Your task to perform on an android device: Go to Wikipedia Image 0: 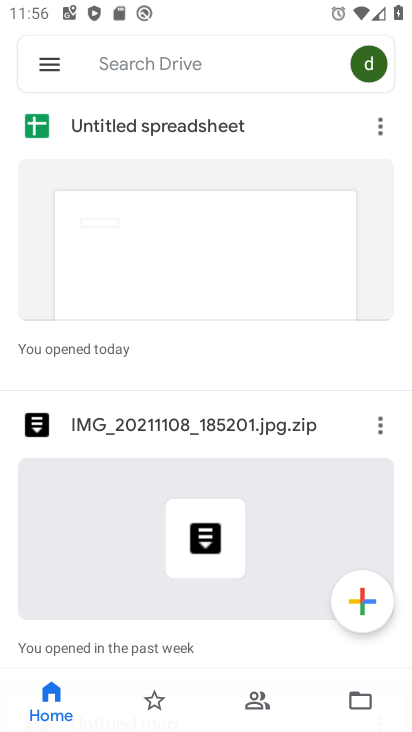
Step 0: press home button
Your task to perform on an android device: Go to Wikipedia Image 1: 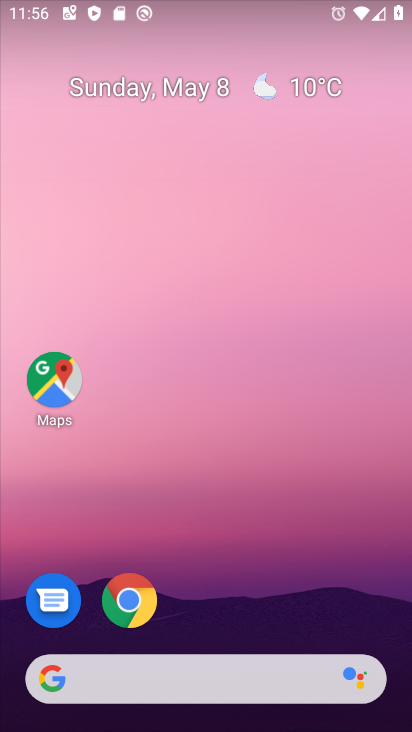
Step 1: click (127, 594)
Your task to perform on an android device: Go to Wikipedia Image 2: 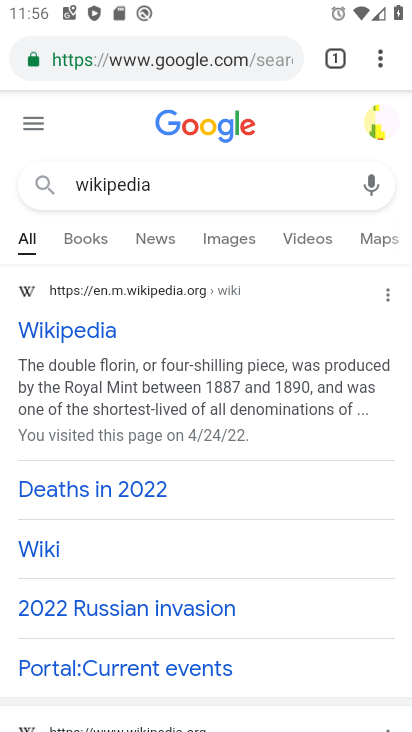
Step 2: click (36, 327)
Your task to perform on an android device: Go to Wikipedia Image 3: 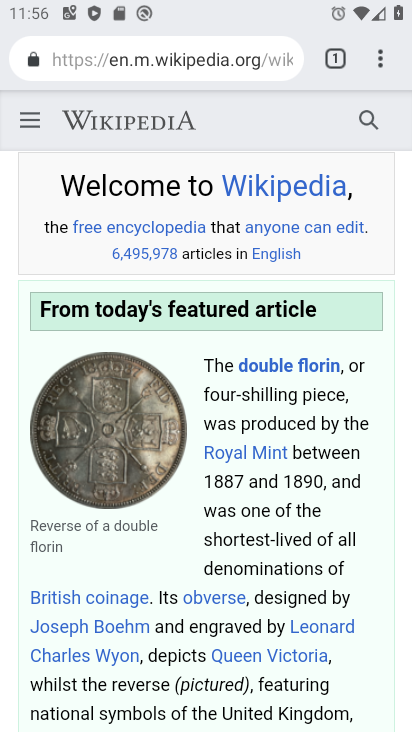
Step 3: task complete